Your task to perform on an android device: Turn off the flashlight Image 0: 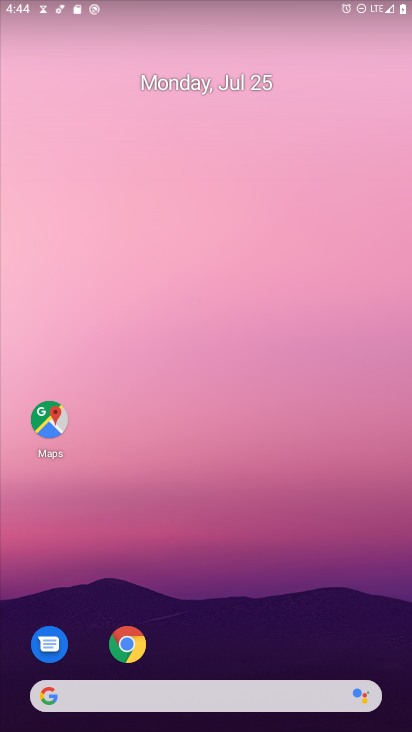
Step 0: press home button
Your task to perform on an android device: Turn off the flashlight Image 1: 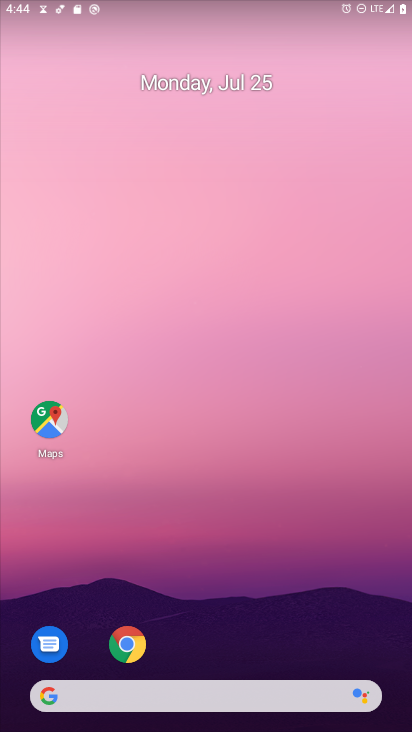
Step 1: task complete